Your task to perform on an android device: turn on data saver in the chrome app Image 0: 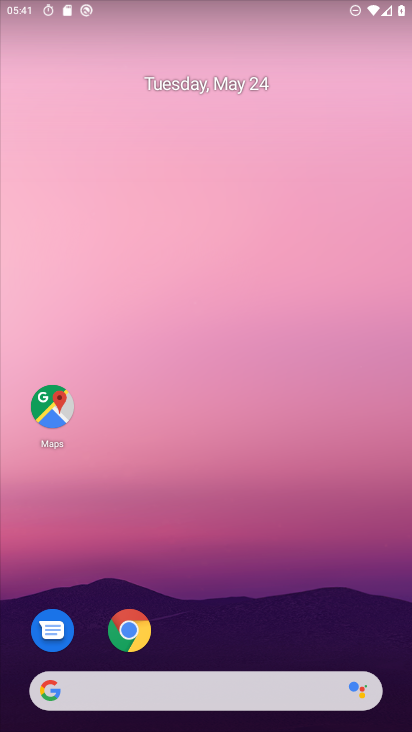
Step 0: click (129, 625)
Your task to perform on an android device: turn on data saver in the chrome app Image 1: 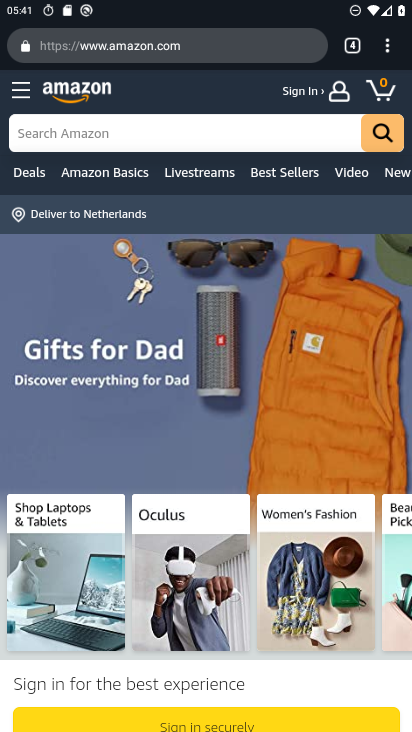
Step 1: click (396, 50)
Your task to perform on an android device: turn on data saver in the chrome app Image 2: 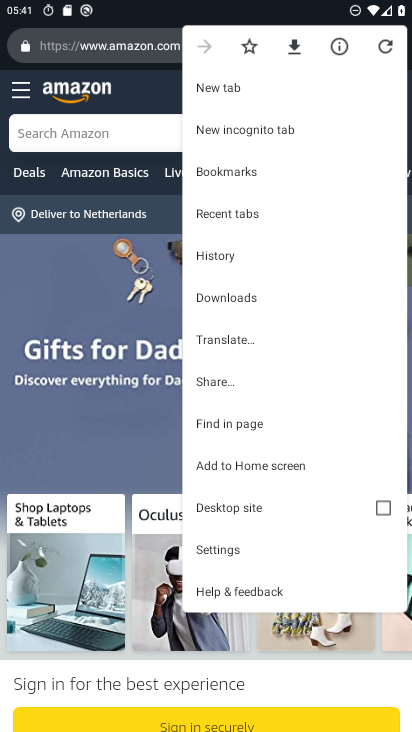
Step 2: click (222, 550)
Your task to perform on an android device: turn on data saver in the chrome app Image 3: 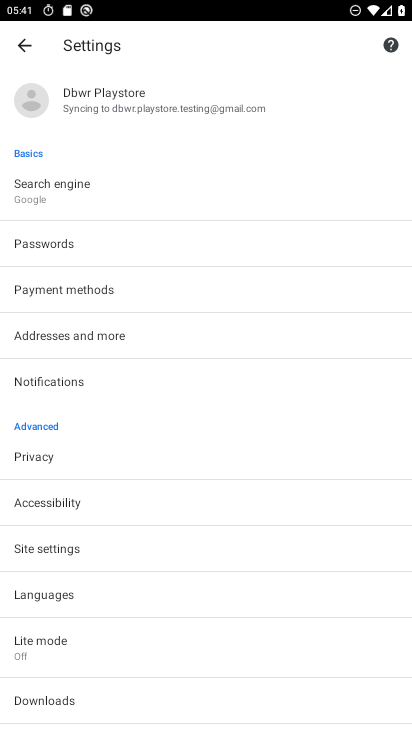
Step 3: click (62, 635)
Your task to perform on an android device: turn on data saver in the chrome app Image 4: 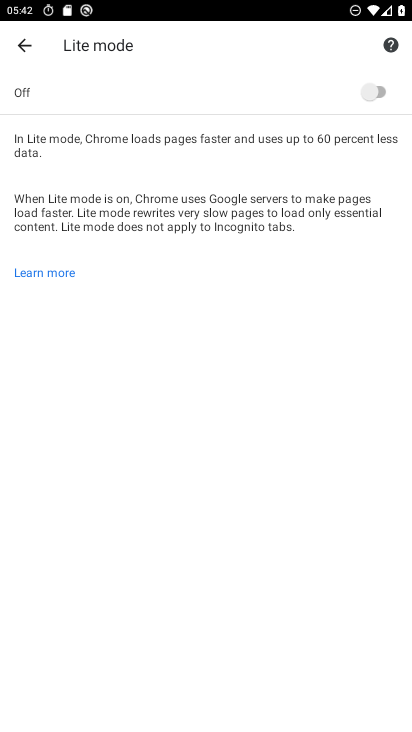
Step 4: click (387, 97)
Your task to perform on an android device: turn on data saver in the chrome app Image 5: 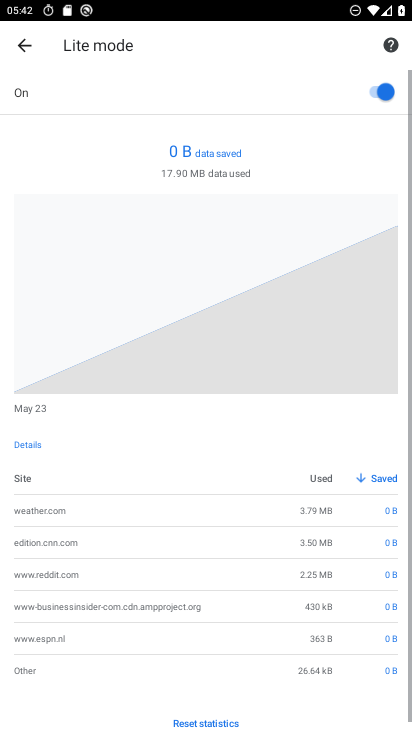
Step 5: task complete